Your task to perform on an android device: check data usage Image 0: 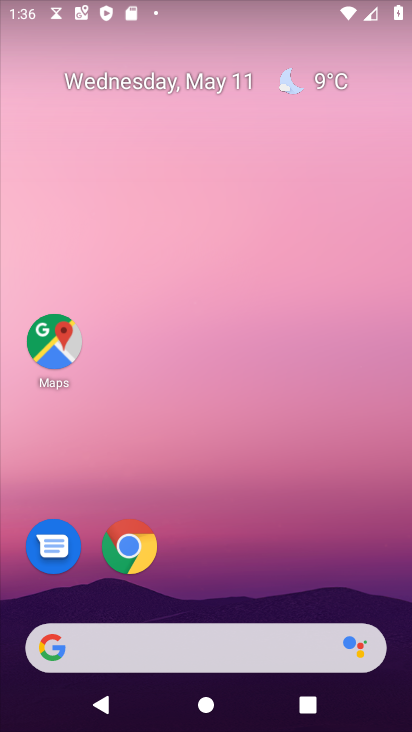
Step 0: drag from (343, 609) to (310, 49)
Your task to perform on an android device: check data usage Image 1: 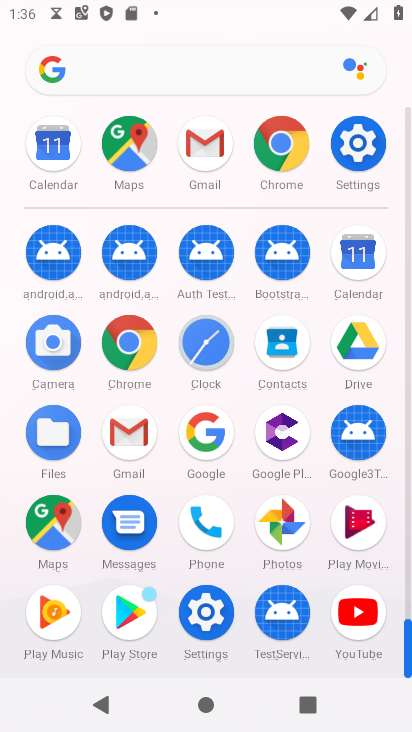
Step 1: click (342, 148)
Your task to perform on an android device: check data usage Image 2: 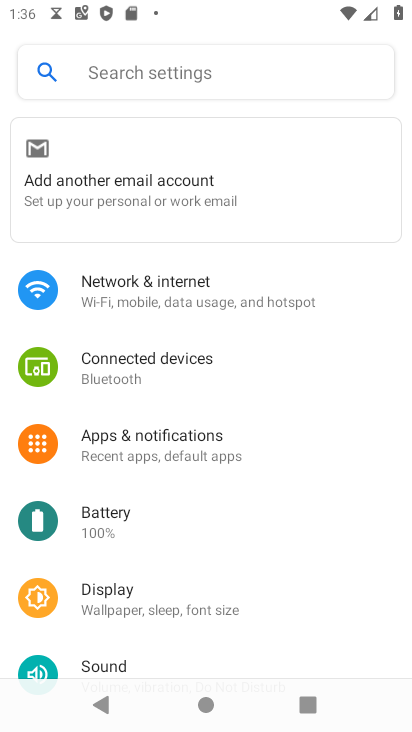
Step 2: click (208, 296)
Your task to perform on an android device: check data usage Image 3: 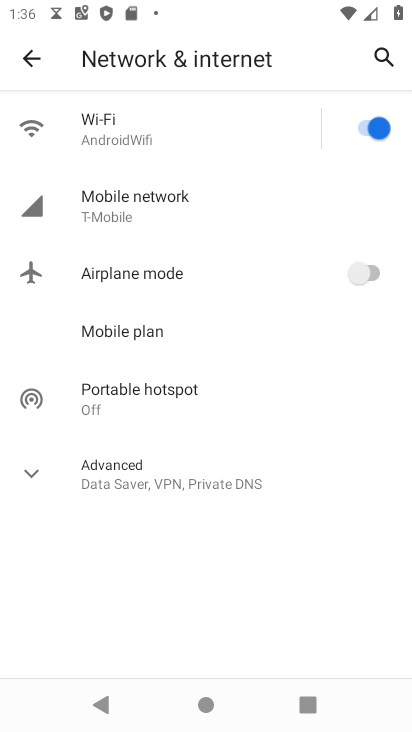
Step 3: click (178, 195)
Your task to perform on an android device: check data usage Image 4: 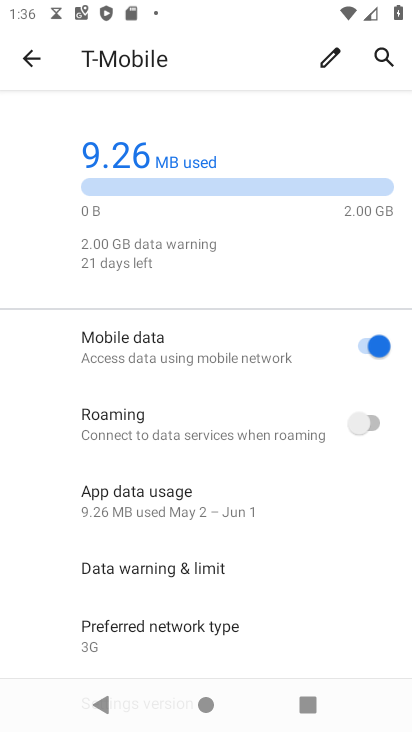
Step 4: click (217, 508)
Your task to perform on an android device: check data usage Image 5: 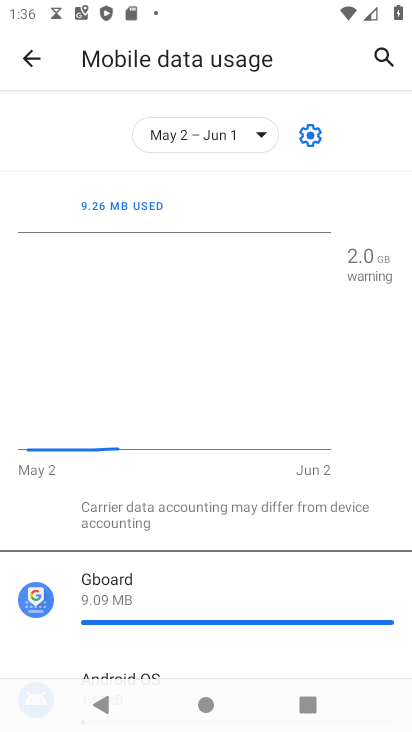
Step 5: task complete